Your task to perform on an android device: Search for Italian restaurants on Maps Image 0: 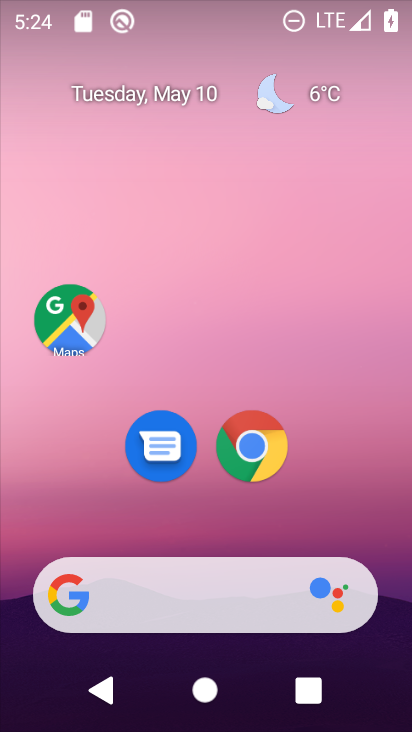
Step 0: click (285, 99)
Your task to perform on an android device: Search for Italian restaurants on Maps Image 1: 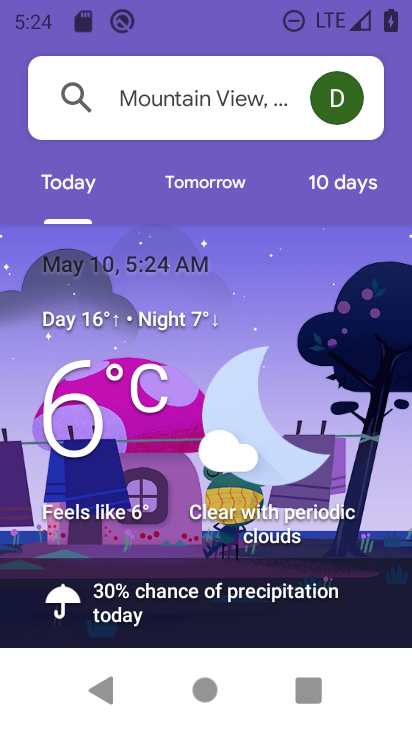
Step 1: press home button
Your task to perform on an android device: Search for Italian restaurants on Maps Image 2: 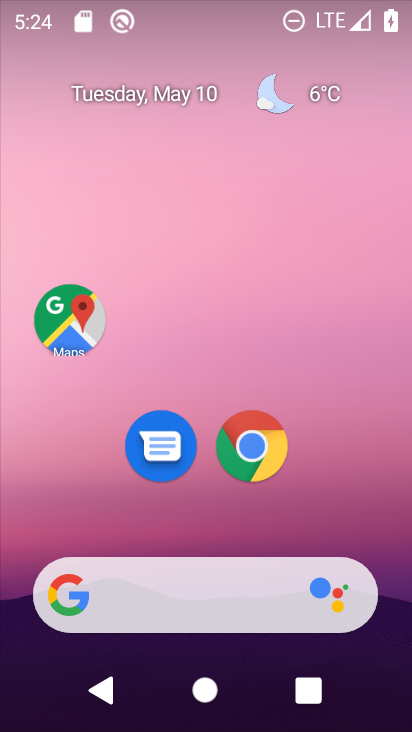
Step 2: click (57, 317)
Your task to perform on an android device: Search for Italian restaurants on Maps Image 3: 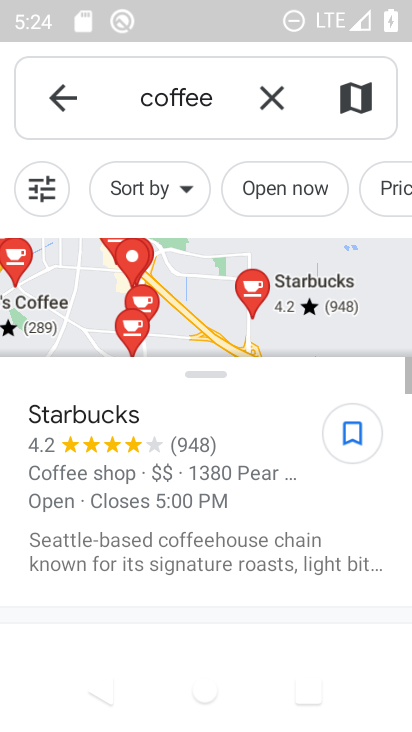
Step 3: click (265, 99)
Your task to perform on an android device: Search for Italian restaurants on Maps Image 4: 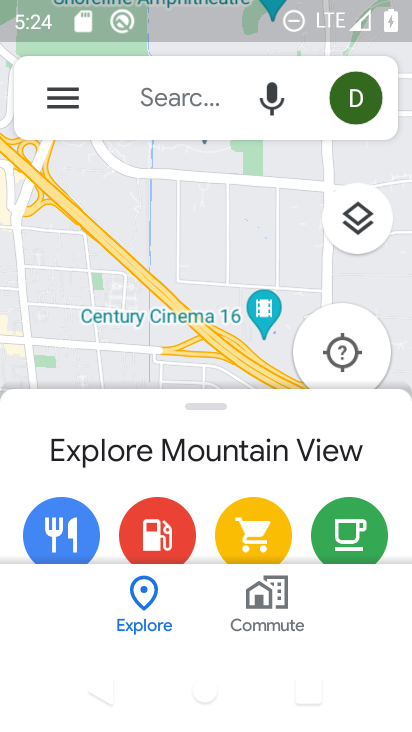
Step 4: click (172, 102)
Your task to perform on an android device: Search for Italian restaurants on Maps Image 5: 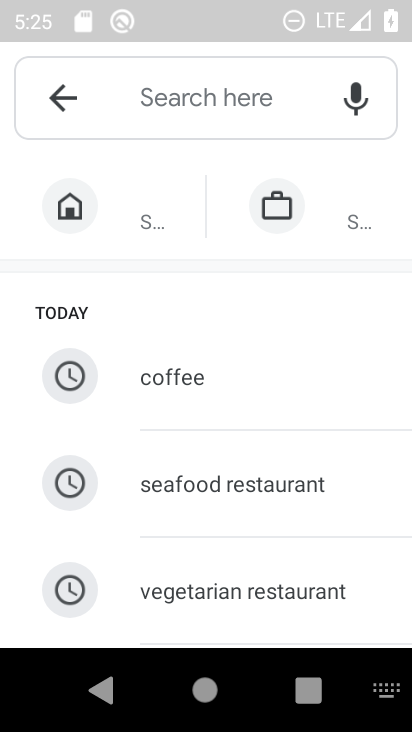
Step 5: type "italian restaurants"
Your task to perform on an android device: Search for Italian restaurants on Maps Image 6: 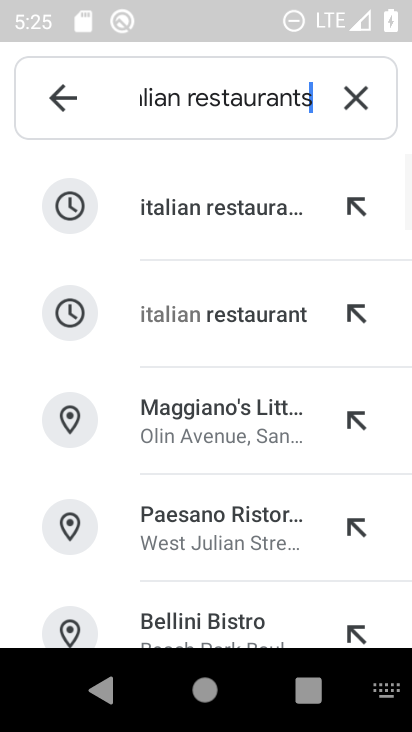
Step 6: click (216, 228)
Your task to perform on an android device: Search for Italian restaurants on Maps Image 7: 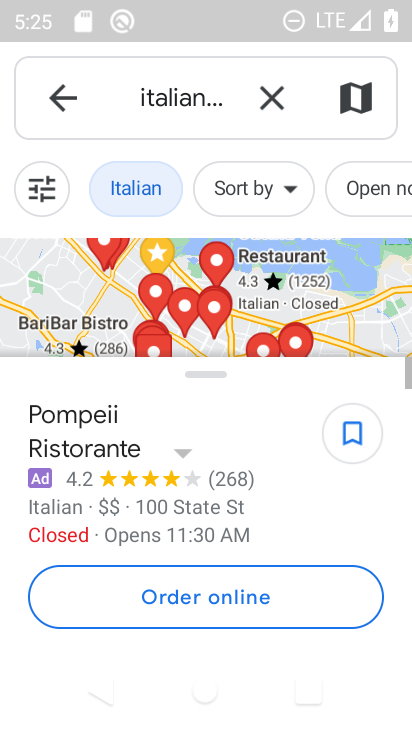
Step 7: task complete